Your task to perform on an android device: turn on javascript in the chrome app Image 0: 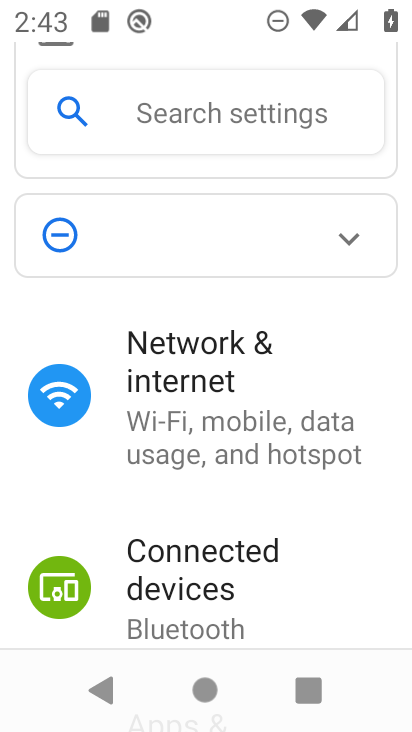
Step 0: press home button
Your task to perform on an android device: turn on javascript in the chrome app Image 1: 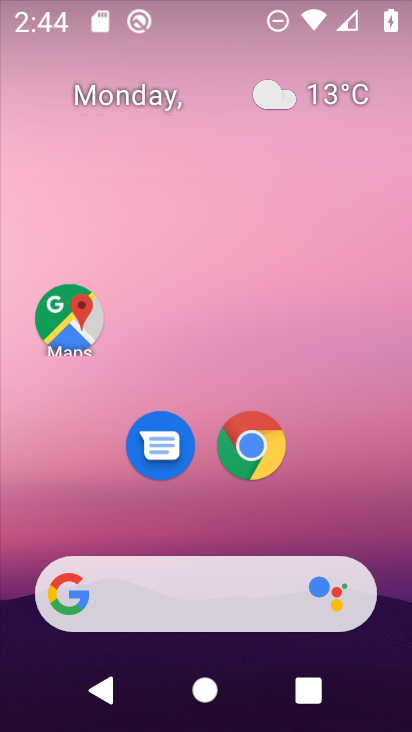
Step 1: drag from (390, 620) to (309, 159)
Your task to perform on an android device: turn on javascript in the chrome app Image 2: 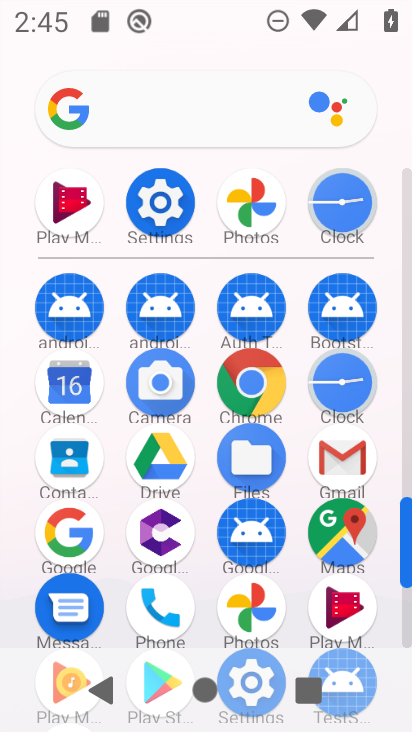
Step 2: click (249, 381)
Your task to perform on an android device: turn on javascript in the chrome app Image 3: 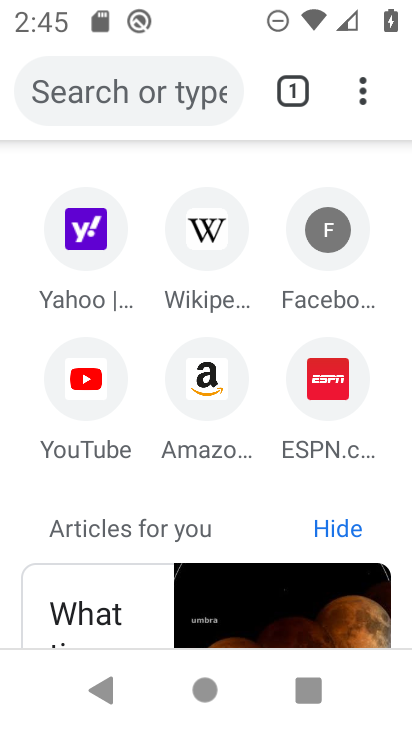
Step 3: click (362, 81)
Your task to perform on an android device: turn on javascript in the chrome app Image 4: 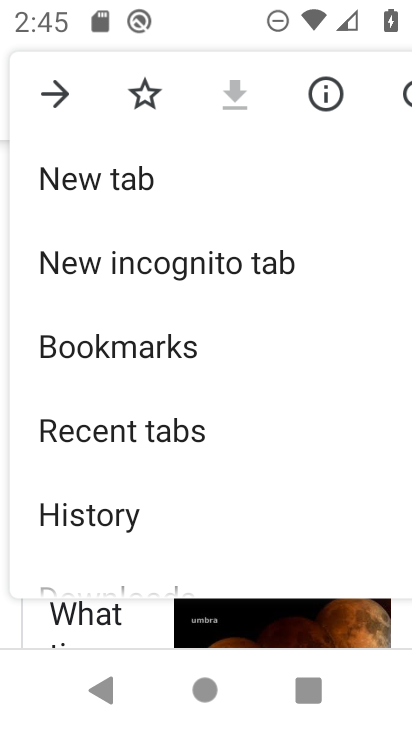
Step 4: drag from (184, 536) to (233, 263)
Your task to perform on an android device: turn on javascript in the chrome app Image 5: 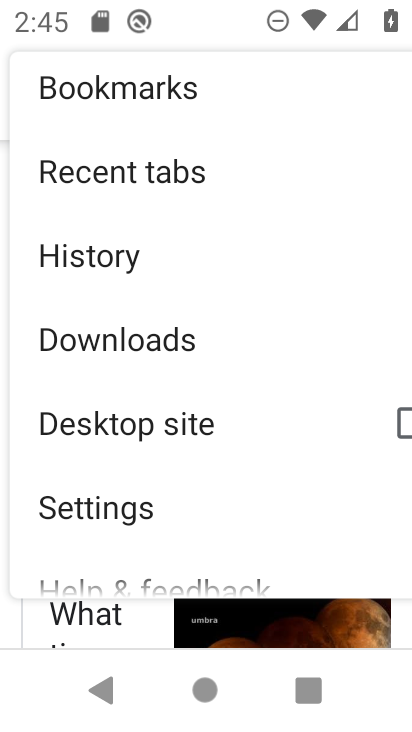
Step 5: drag from (201, 463) to (222, 290)
Your task to perform on an android device: turn on javascript in the chrome app Image 6: 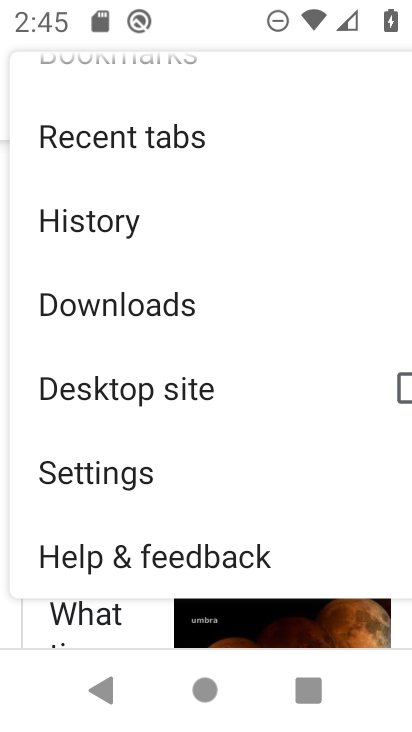
Step 6: click (145, 480)
Your task to perform on an android device: turn on javascript in the chrome app Image 7: 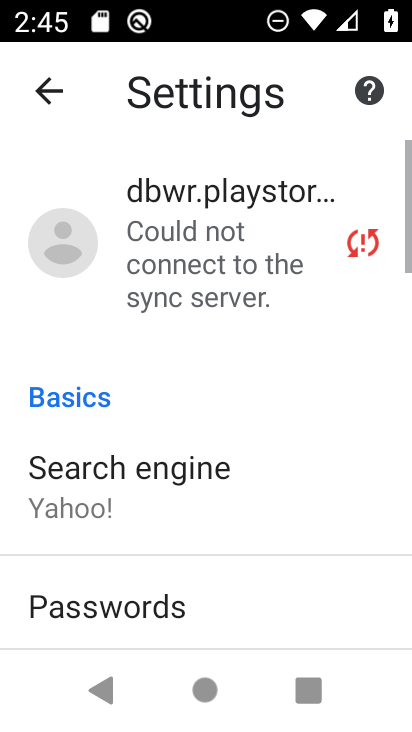
Step 7: drag from (194, 584) to (202, 131)
Your task to perform on an android device: turn on javascript in the chrome app Image 8: 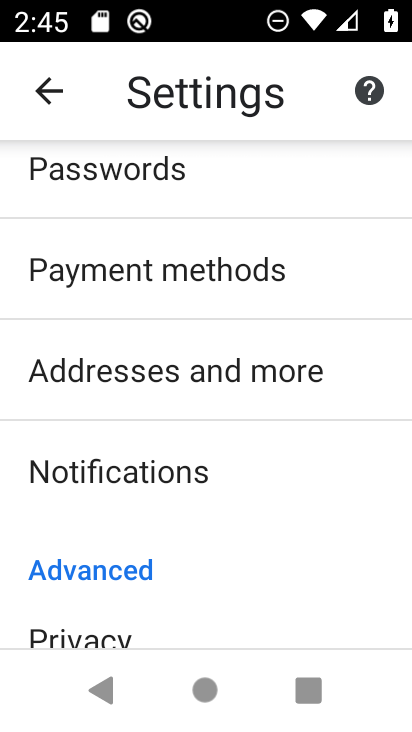
Step 8: drag from (156, 591) to (193, 101)
Your task to perform on an android device: turn on javascript in the chrome app Image 9: 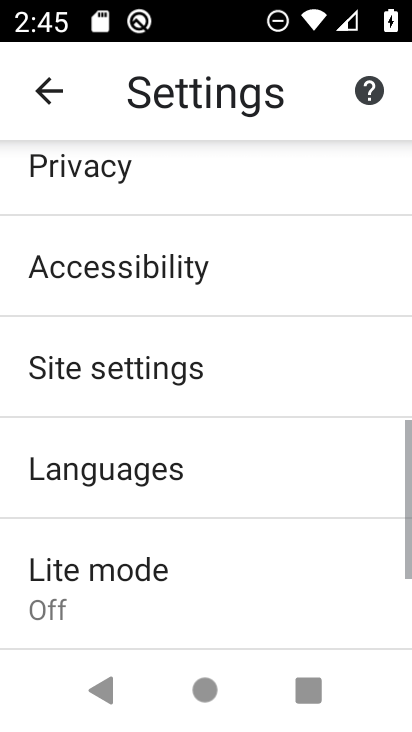
Step 9: click (194, 370)
Your task to perform on an android device: turn on javascript in the chrome app Image 10: 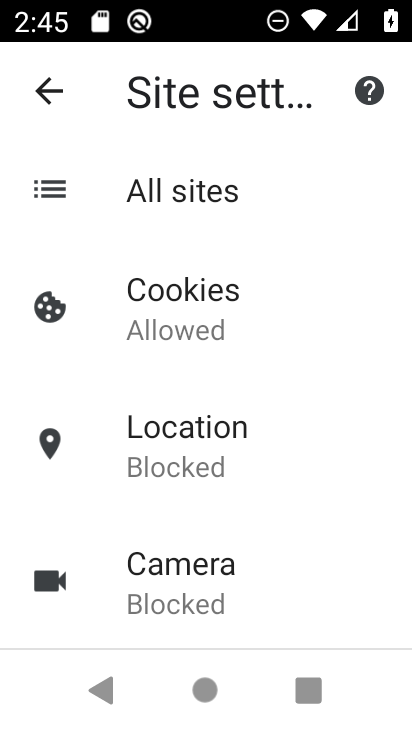
Step 10: drag from (253, 545) to (233, 104)
Your task to perform on an android device: turn on javascript in the chrome app Image 11: 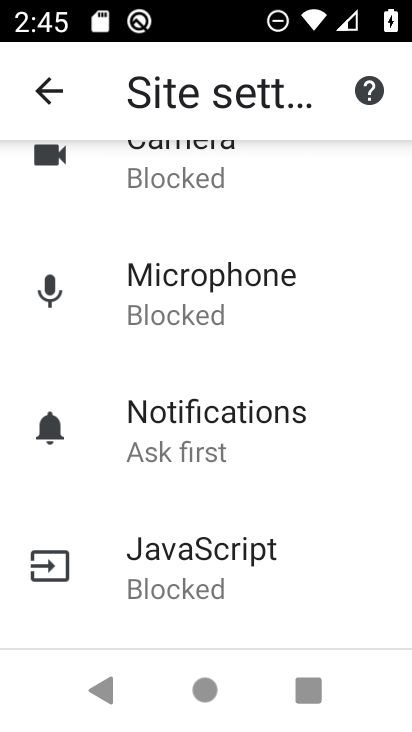
Step 11: click (238, 578)
Your task to perform on an android device: turn on javascript in the chrome app Image 12: 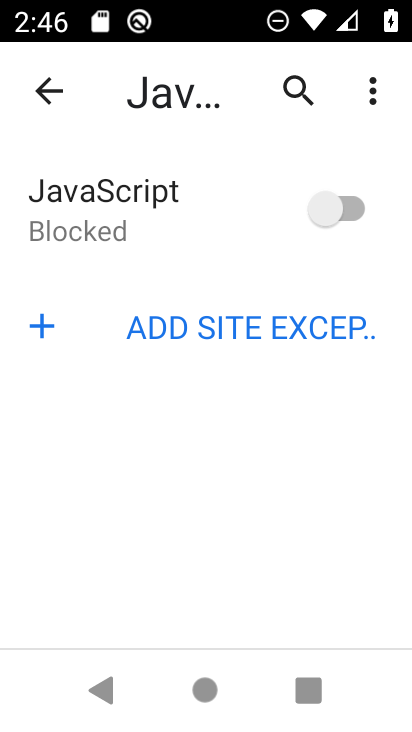
Step 12: click (337, 235)
Your task to perform on an android device: turn on javascript in the chrome app Image 13: 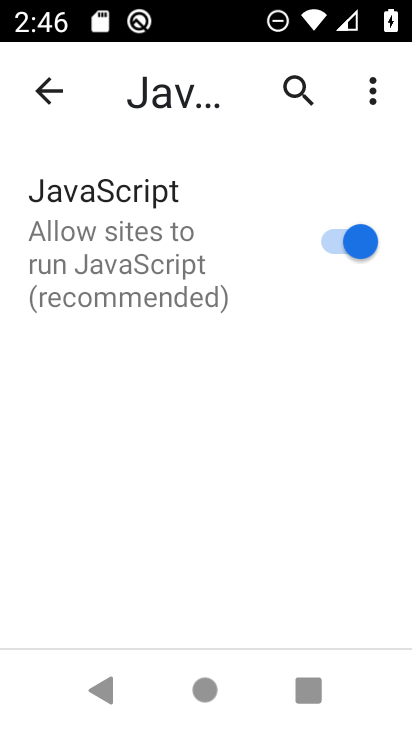
Step 13: task complete